Your task to perform on an android device: set the timer Image 0: 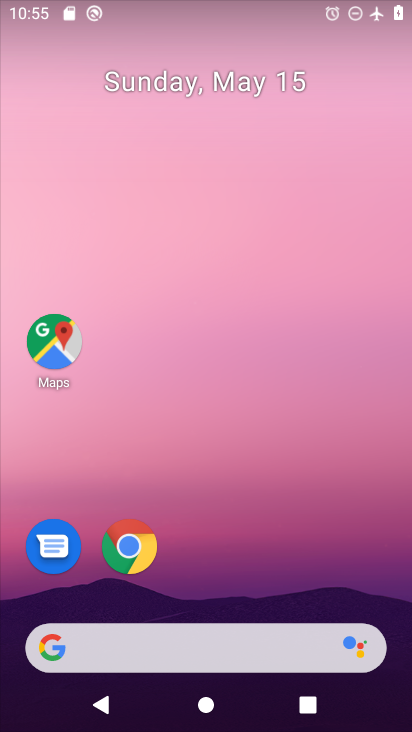
Step 0: drag from (258, 575) to (367, 95)
Your task to perform on an android device: set the timer Image 1: 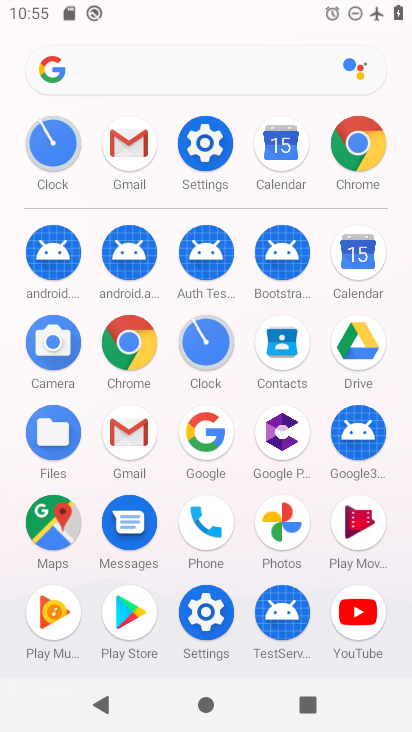
Step 1: click (205, 344)
Your task to perform on an android device: set the timer Image 2: 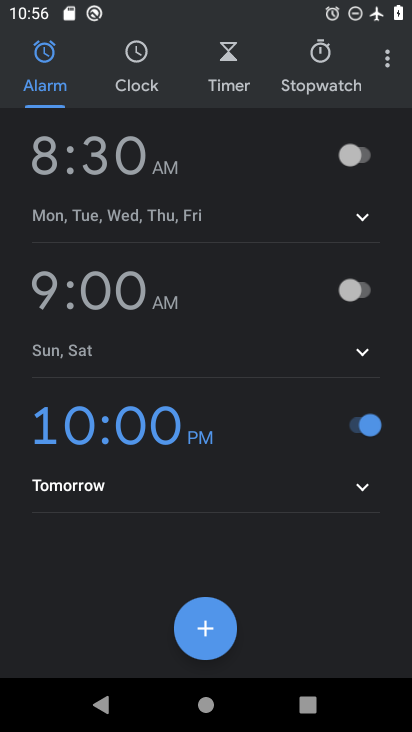
Step 2: click (241, 86)
Your task to perform on an android device: set the timer Image 3: 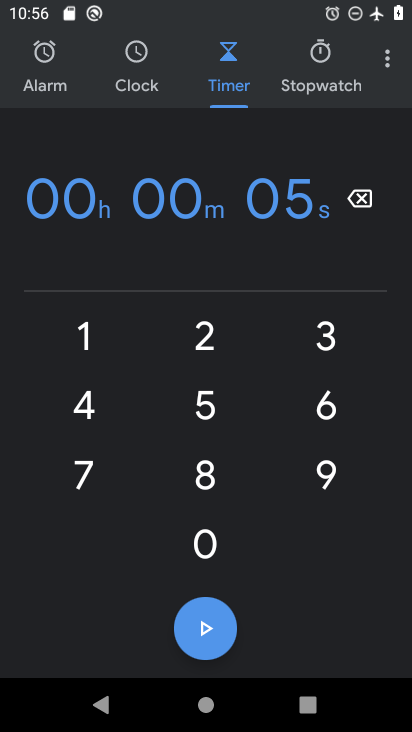
Step 3: click (222, 410)
Your task to perform on an android device: set the timer Image 4: 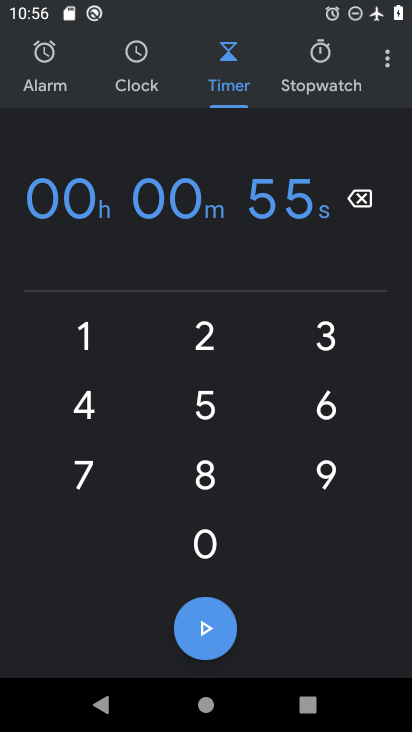
Step 4: task complete